Your task to perform on an android device: change alarm snooze length Image 0: 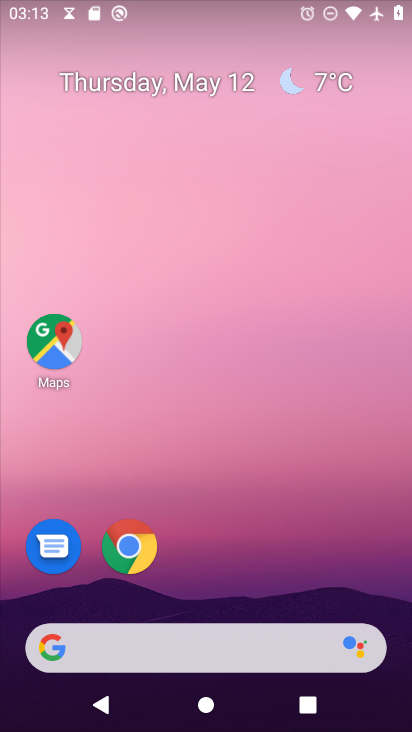
Step 0: drag from (181, 657) to (293, 163)
Your task to perform on an android device: change alarm snooze length Image 1: 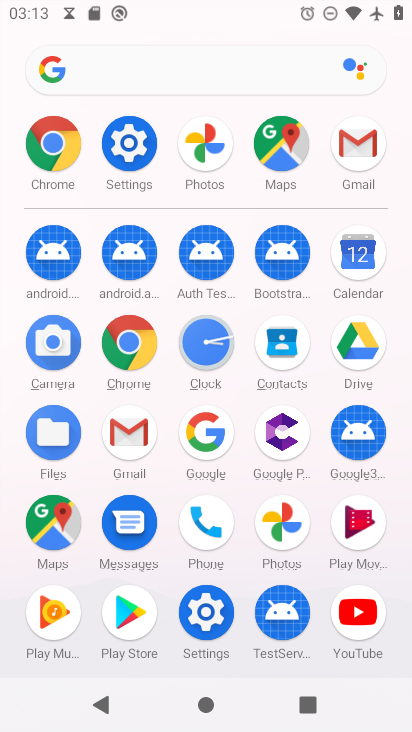
Step 1: click (197, 354)
Your task to perform on an android device: change alarm snooze length Image 2: 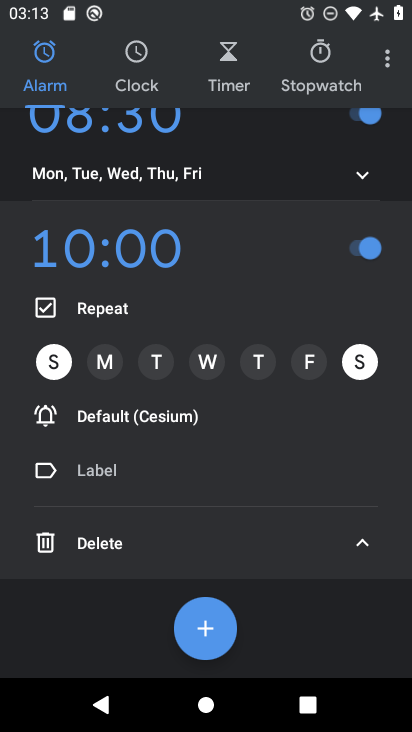
Step 2: click (387, 70)
Your task to perform on an android device: change alarm snooze length Image 3: 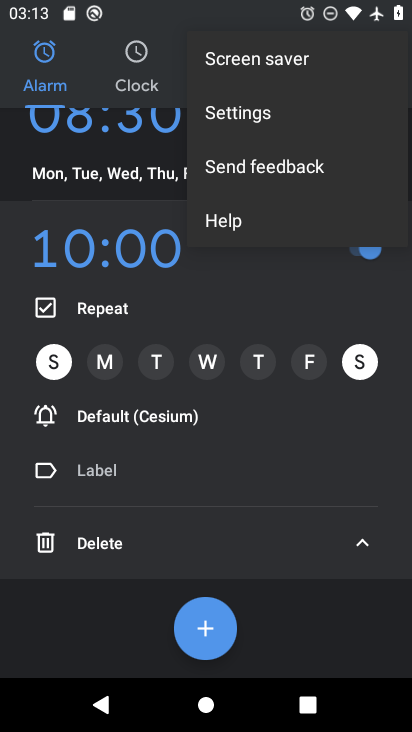
Step 3: click (249, 117)
Your task to perform on an android device: change alarm snooze length Image 4: 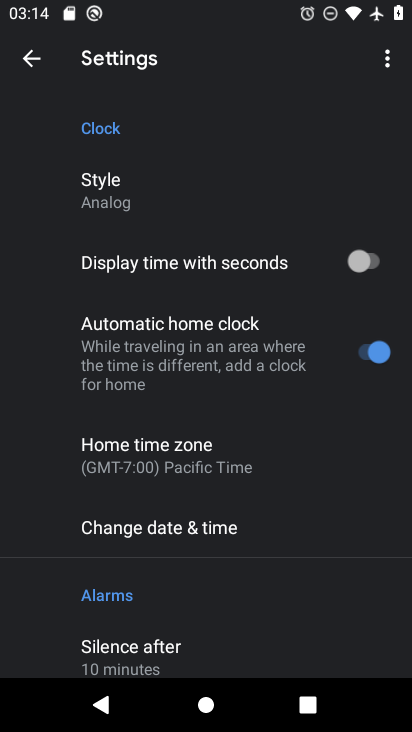
Step 4: drag from (187, 552) to (277, 106)
Your task to perform on an android device: change alarm snooze length Image 5: 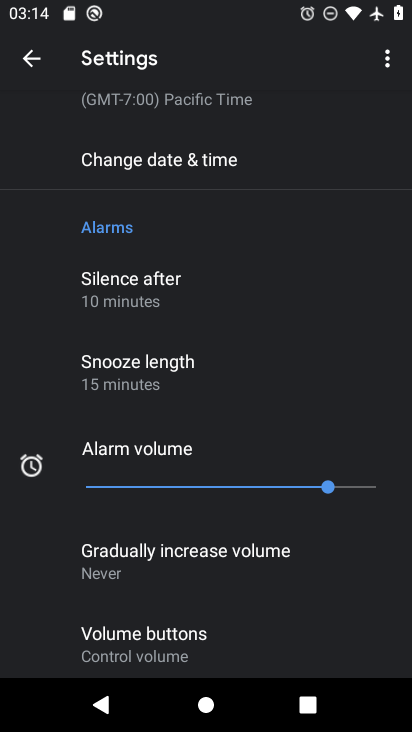
Step 5: click (164, 376)
Your task to perform on an android device: change alarm snooze length Image 6: 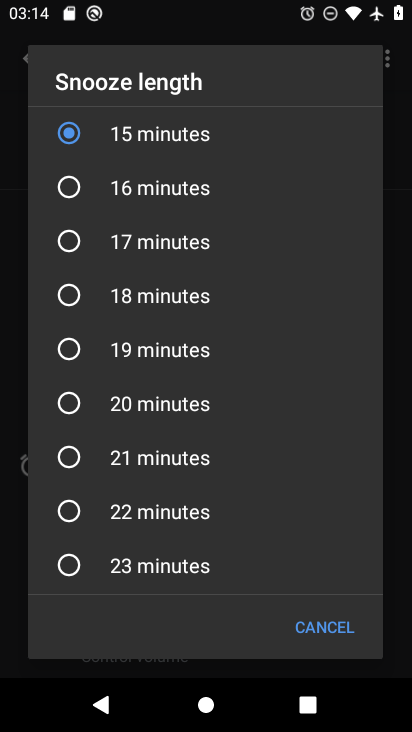
Step 6: click (75, 241)
Your task to perform on an android device: change alarm snooze length Image 7: 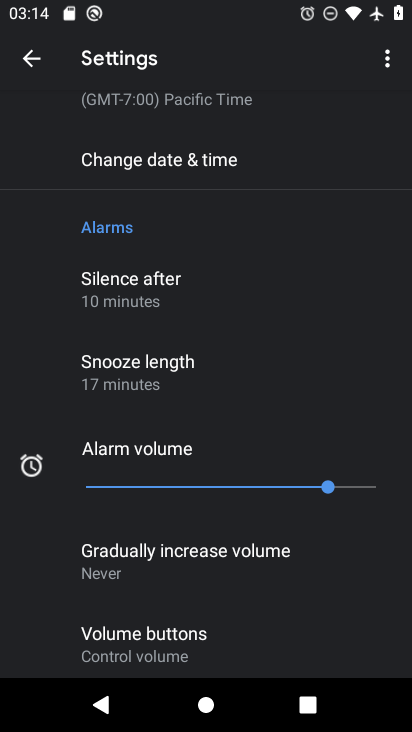
Step 7: task complete